Your task to perform on an android device: Open network settings Image 0: 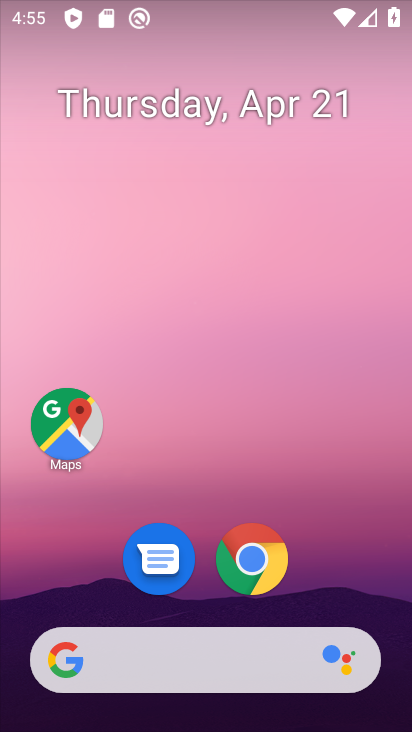
Step 0: drag from (305, 530) to (351, 101)
Your task to perform on an android device: Open network settings Image 1: 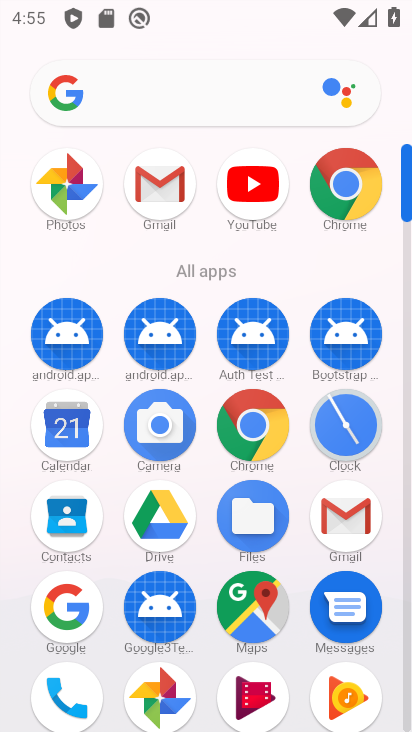
Step 1: drag from (390, 499) to (404, 150)
Your task to perform on an android device: Open network settings Image 2: 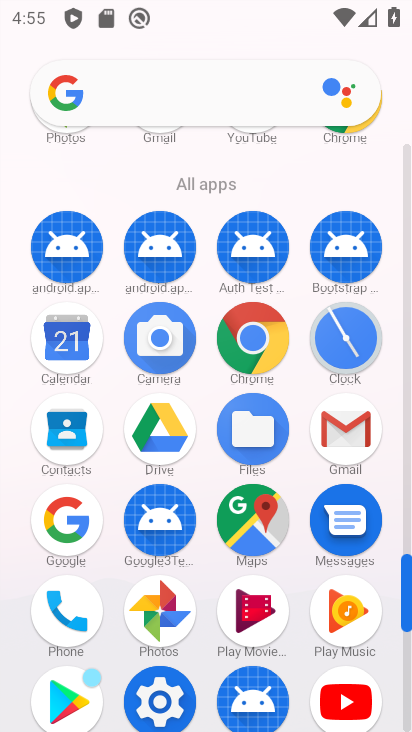
Step 2: click (172, 708)
Your task to perform on an android device: Open network settings Image 3: 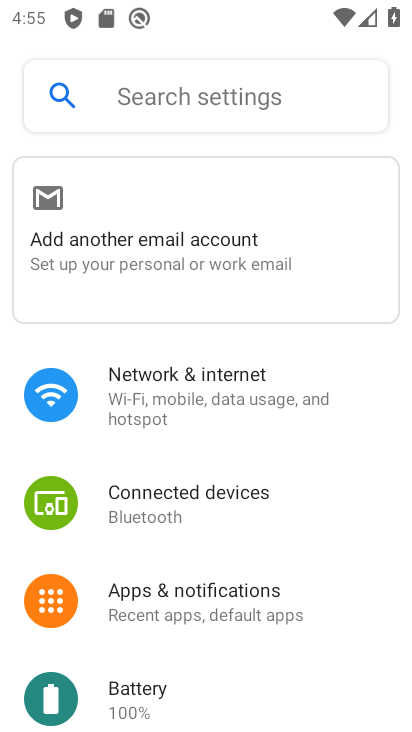
Step 3: click (188, 409)
Your task to perform on an android device: Open network settings Image 4: 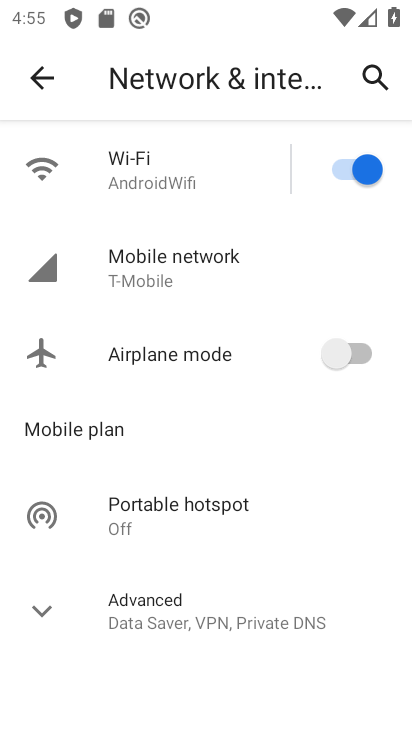
Step 4: click (162, 284)
Your task to perform on an android device: Open network settings Image 5: 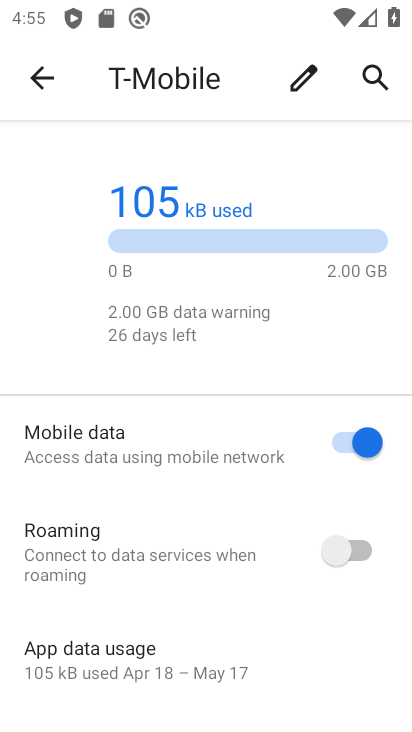
Step 5: task complete